Your task to perform on an android device: Open privacy settings Image 0: 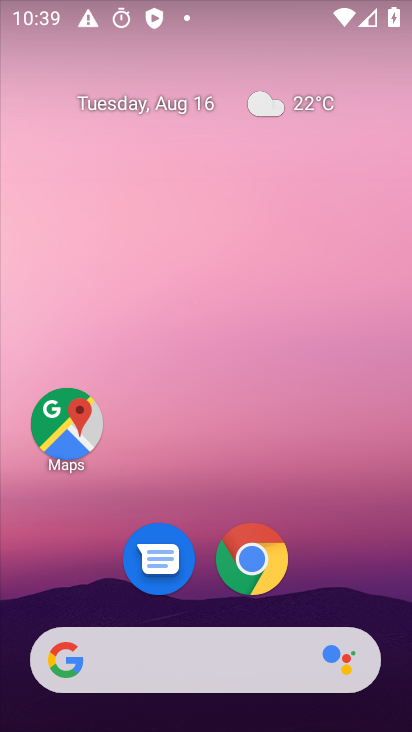
Step 0: drag from (199, 344) to (224, 6)
Your task to perform on an android device: Open privacy settings Image 1: 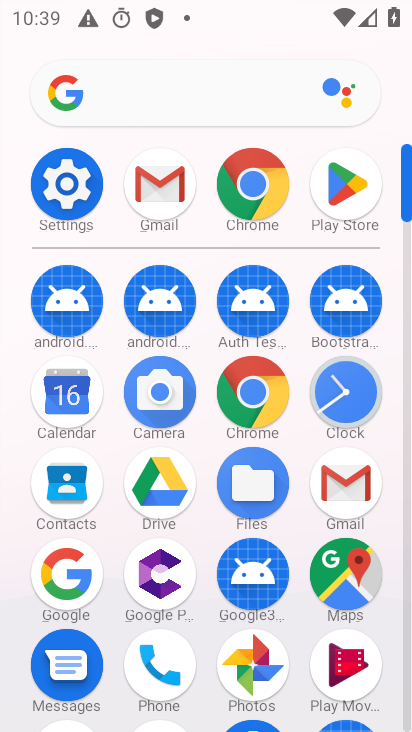
Step 1: click (68, 187)
Your task to perform on an android device: Open privacy settings Image 2: 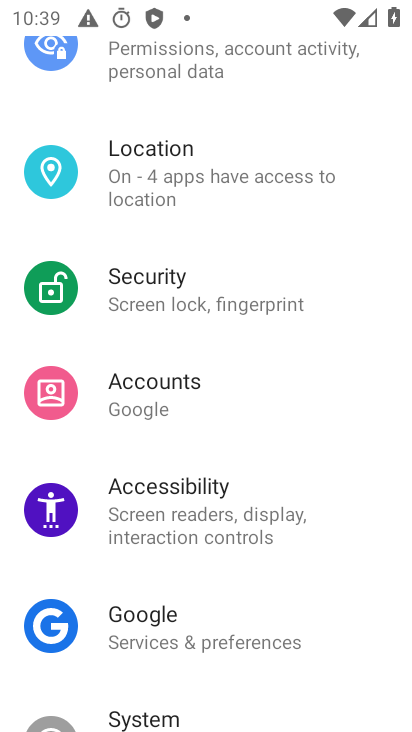
Step 2: drag from (214, 196) to (234, 568)
Your task to perform on an android device: Open privacy settings Image 3: 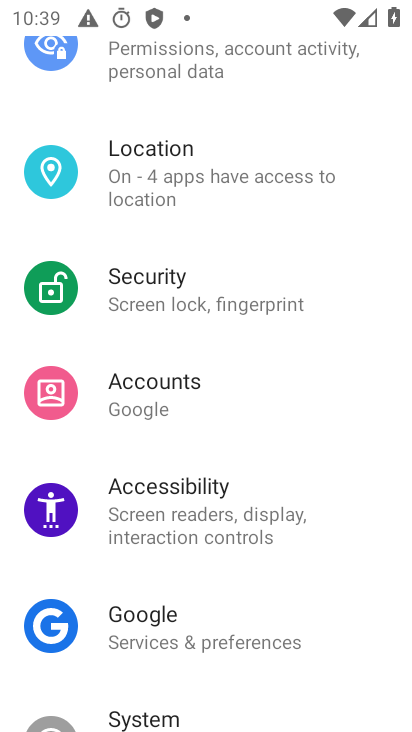
Step 3: drag from (264, 121) to (208, 481)
Your task to perform on an android device: Open privacy settings Image 4: 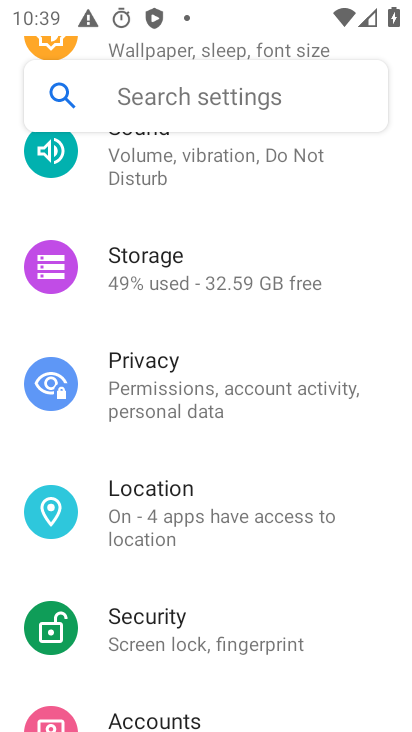
Step 4: drag from (204, 233) to (203, 398)
Your task to perform on an android device: Open privacy settings Image 5: 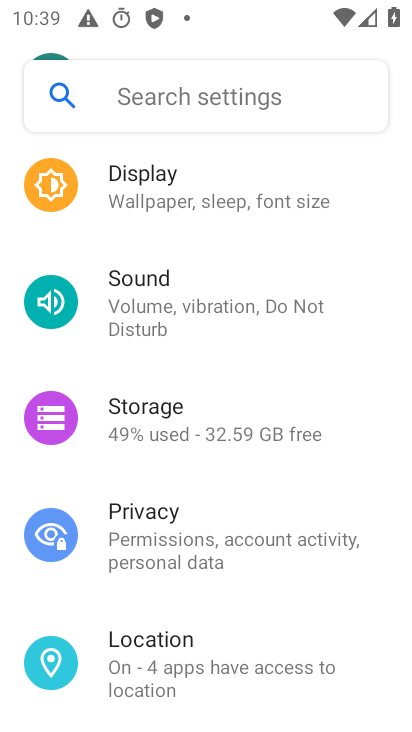
Step 5: click (164, 519)
Your task to perform on an android device: Open privacy settings Image 6: 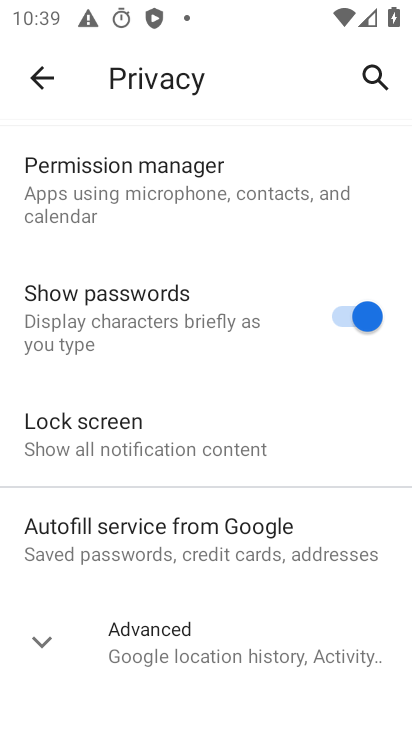
Step 6: task complete